Your task to perform on an android device: Open Google Maps and go to "Timeline" Image 0: 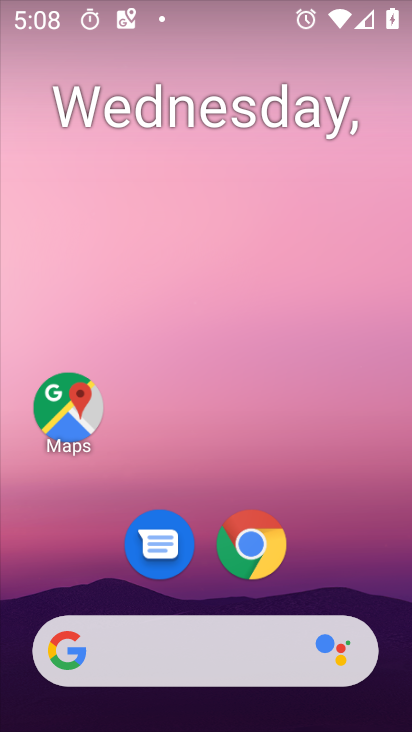
Step 0: click (83, 408)
Your task to perform on an android device: Open Google Maps and go to "Timeline" Image 1: 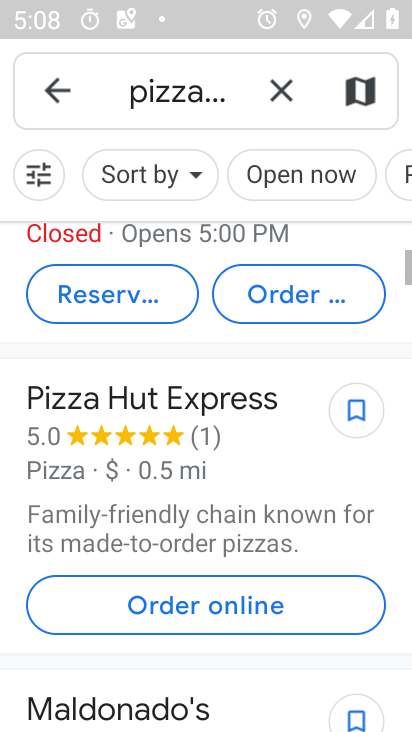
Step 1: click (278, 79)
Your task to perform on an android device: Open Google Maps and go to "Timeline" Image 2: 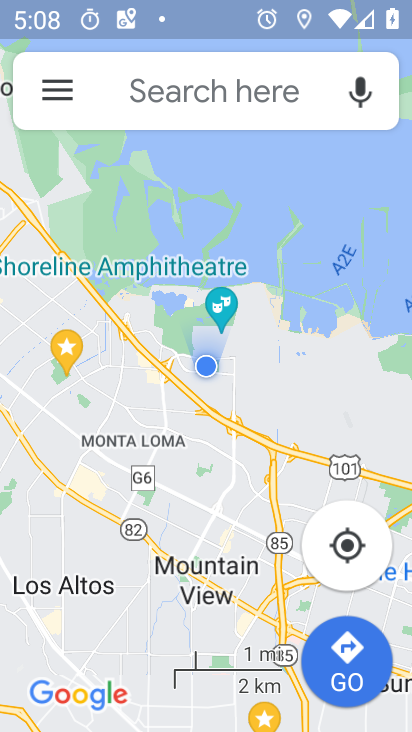
Step 2: click (62, 89)
Your task to perform on an android device: Open Google Maps and go to "Timeline" Image 3: 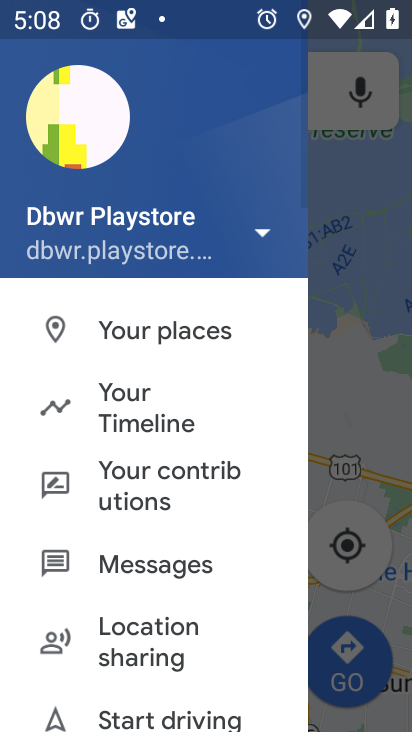
Step 3: click (172, 424)
Your task to perform on an android device: Open Google Maps and go to "Timeline" Image 4: 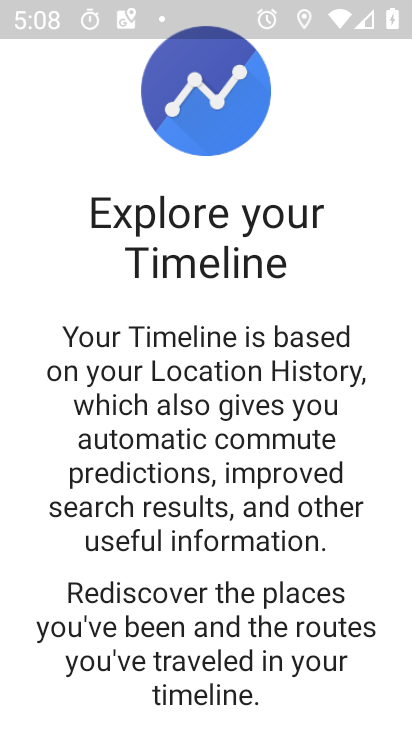
Step 4: drag from (249, 677) to (252, 277)
Your task to perform on an android device: Open Google Maps and go to "Timeline" Image 5: 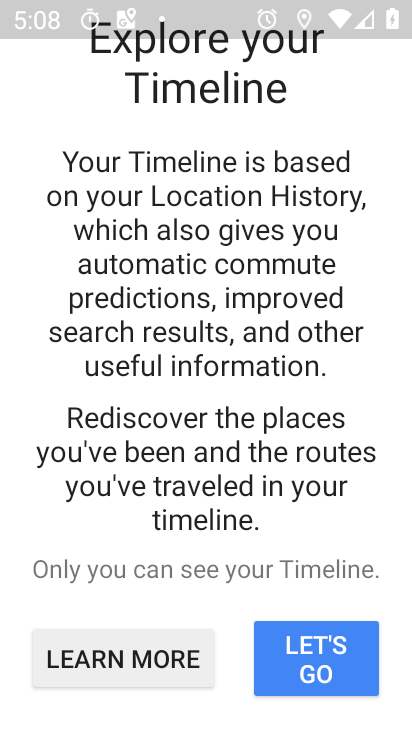
Step 5: click (336, 643)
Your task to perform on an android device: Open Google Maps and go to "Timeline" Image 6: 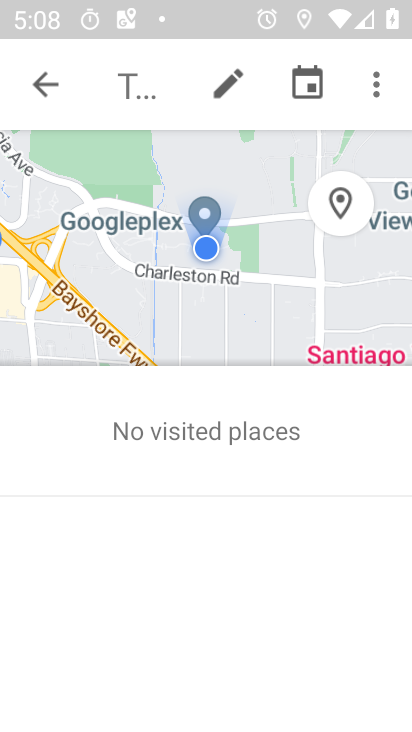
Step 6: task complete